Your task to perform on an android device: Go to Google maps Image 0: 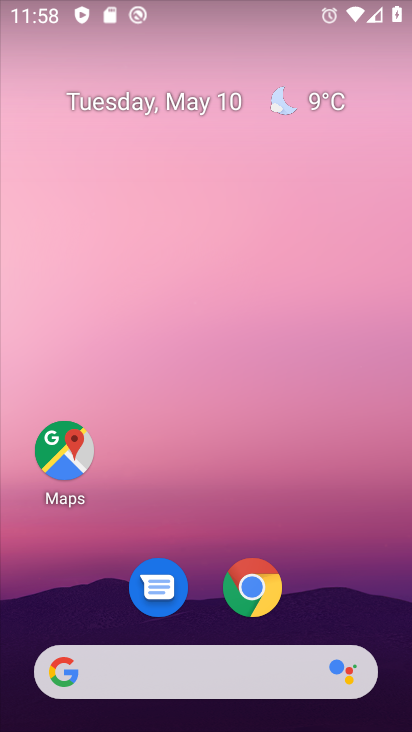
Step 0: click (62, 463)
Your task to perform on an android device: Go to Google maps Image 1: 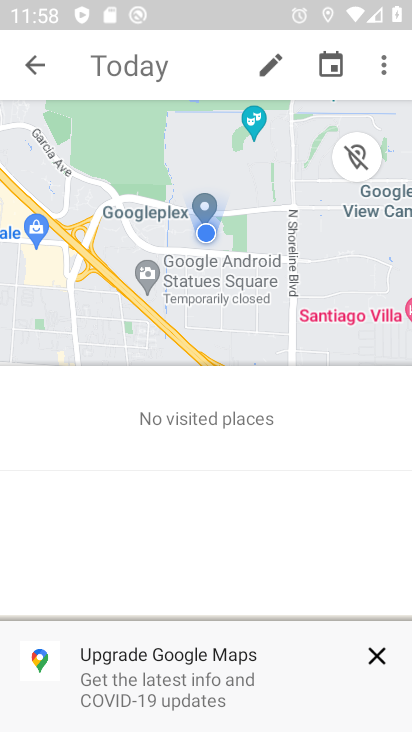
Step 1: click (33, 76)
Your task to perform on an android device: Go to Google maps Image 2: 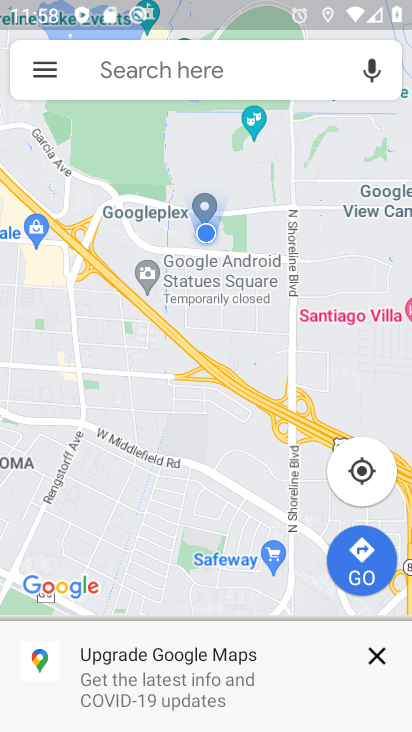
Step 2: task complete